Your task to perform on an android device: Turn off the flashlight Image 0: 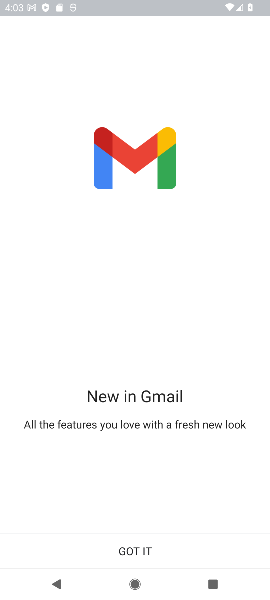
Step 0: press home button
Your task to perform on an android device: Turn off the flashlight Image 1: 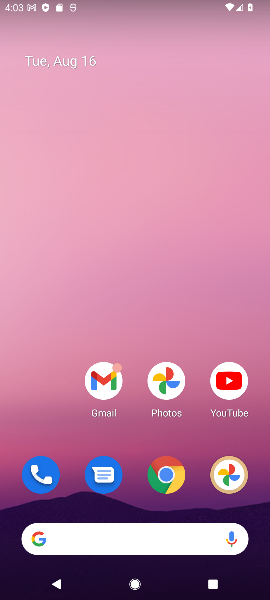
Step 1: drag from (243, 506) to (113, 16)
Your task to perform on an android device: Turn off the flashlight Image 2: 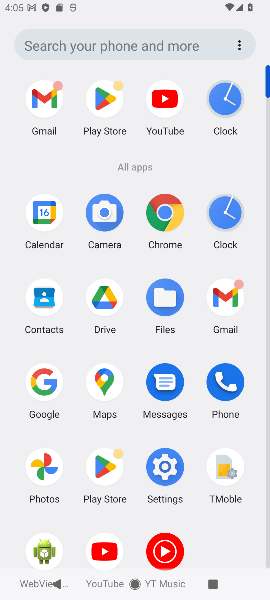
Step 2: click (159, 465)
Your task to perform on an android device: Turn off the flashlight Image 3: 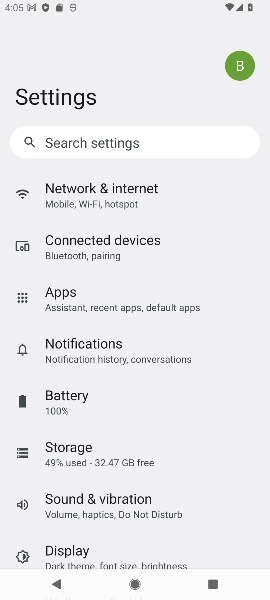
Step 3: task complete